Your task to perform on an android device: turn on the 24-hour format for clock Image 0: 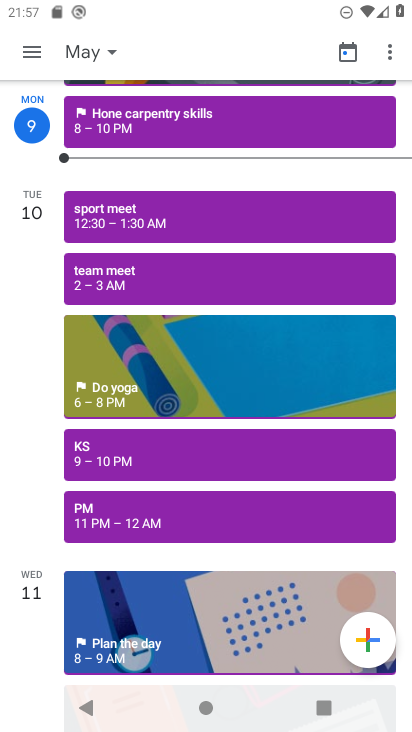
Step 0: press home button
Your task to perform on an android device: turn on the 24-hour format for clock Image 1: 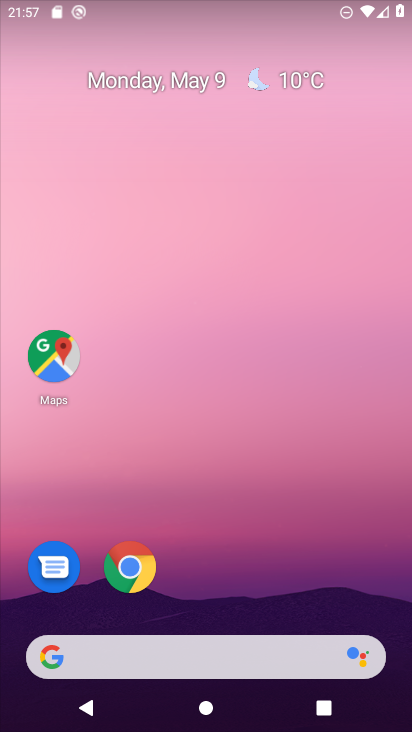
Step 1: drag from (302, 540) to (272, 36)
Your task to perform on an android device: turn on the 24-hour format for clock Image 2: 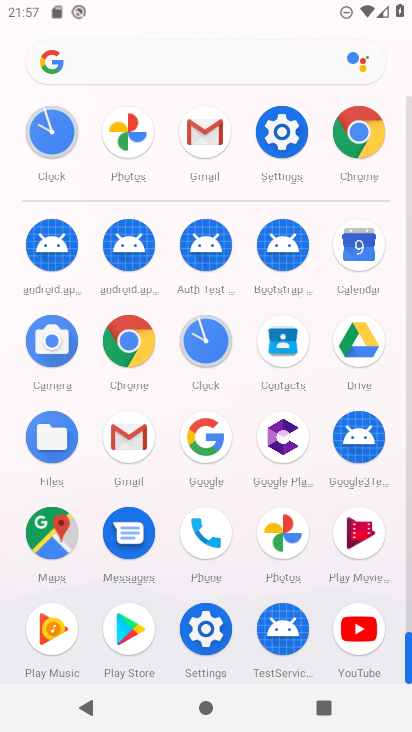
Step 2: click (208, 330)
Your task to perform on an android device: turn on the 24-hour format for clock Image 3: 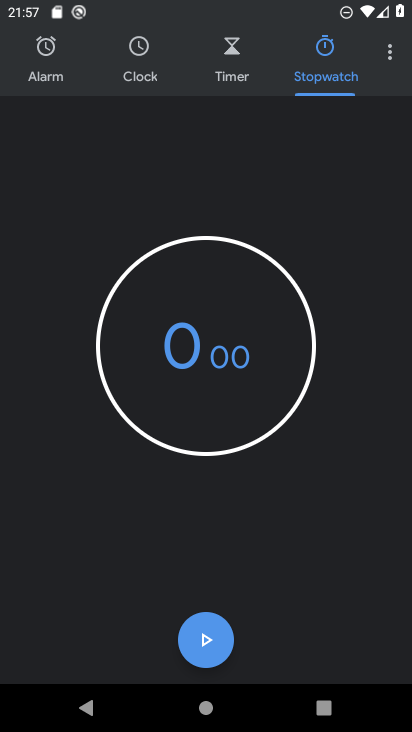
Step 3: click (384, 46)
Your task to perform on an android device: turn on the 24-hour format for clock Image 4: 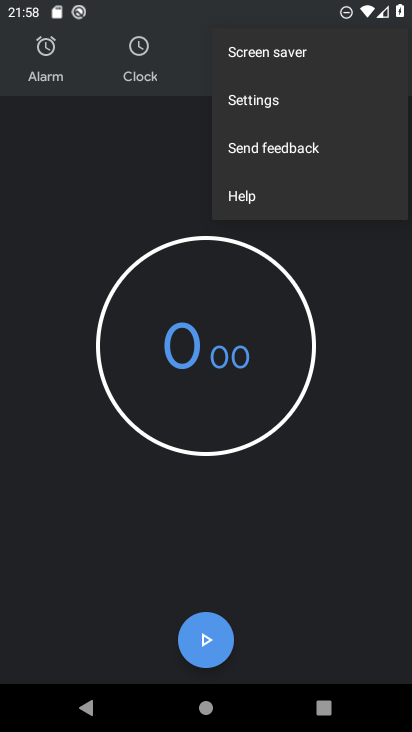
Step 4: click (337, 104)
Your task to perform on an android device: turn on the 24-hour format for clock Image 5: 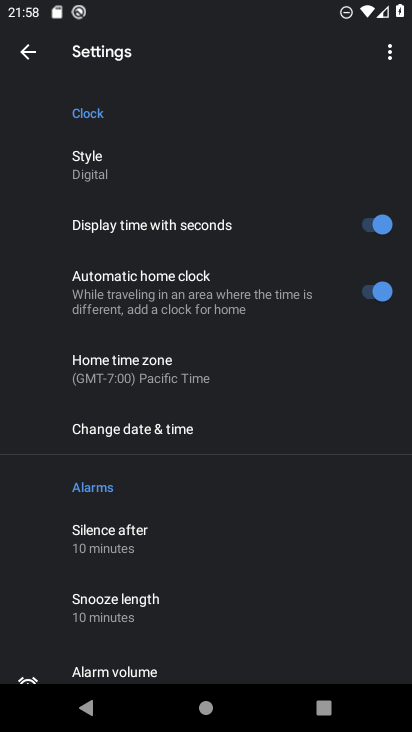
Step 5: click (184, 426)
Your task to perform on an android device: turn on the 24-hour format for clock Image 6: 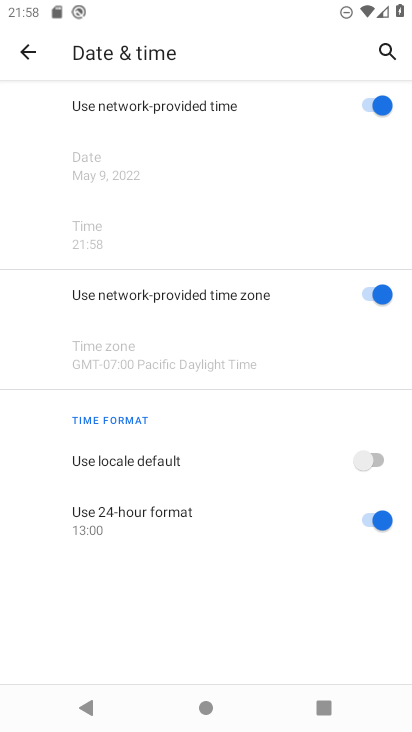
Step 6: task complete